Your task to perform on an android device: turn on translation in the chrome app Image 0: 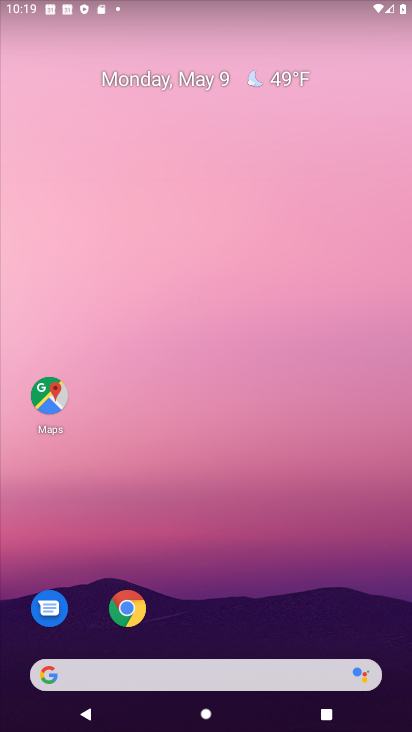
Step 0: drag from (280, 600) to (285, 117)
Your task to perform on an android device: turn on translation in the chrome app Image 1: 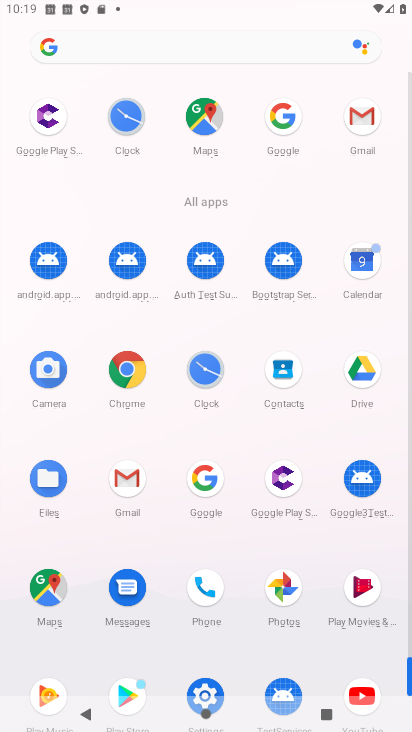
Step 1: click (125, 381)
Your task to perform on an android device: turn on translation in the chrome app Image 2: 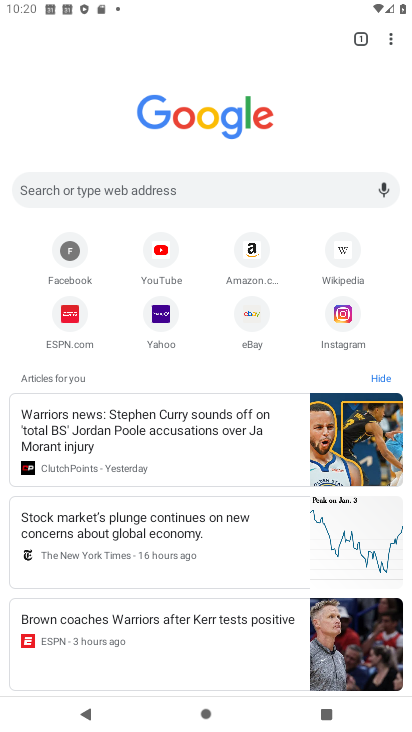
Step 2: drag from (391, 42) to (249, 362)
Your task to perform on an android device: turn on translation in the chrome app Image 3: 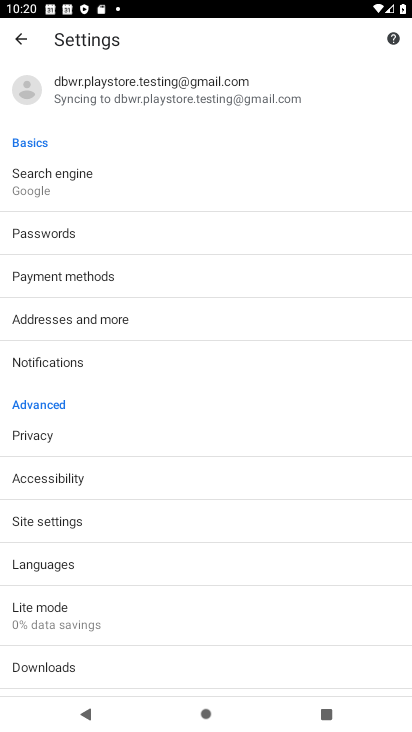
Step 3: click (126, 561)
Your task to perform on an android device: turn on translation in the chrome app Image 4: 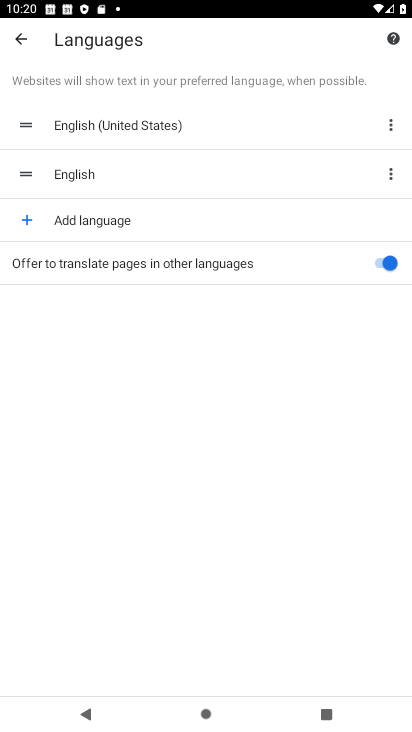
Step 4: click (23, 31)
Your task to perform on an android device: turn on translation in the chrome app Image 5: 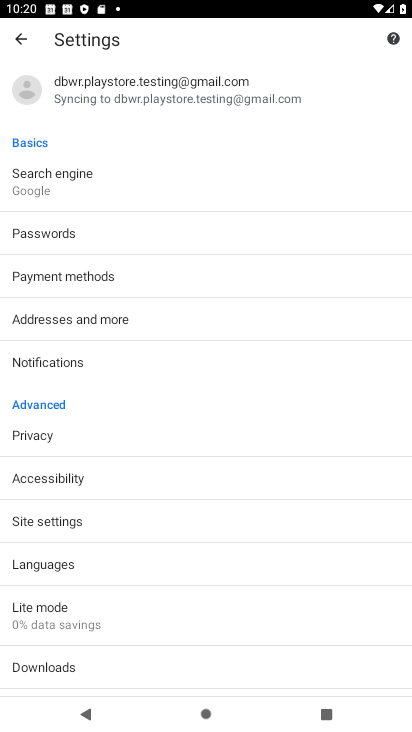
Step 5: click (70, 573)
Your task to perform on an android device: turn on translation in the chrome app Image 6: 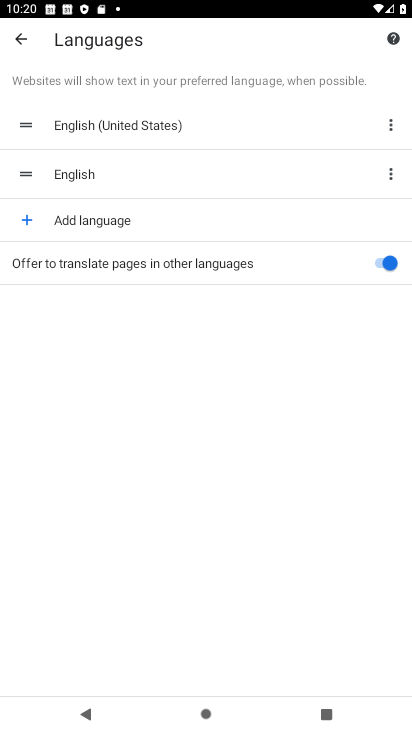
Step 6: task complete